Your task to perform on an android device: toggle pop-ups in chrome Image 0: 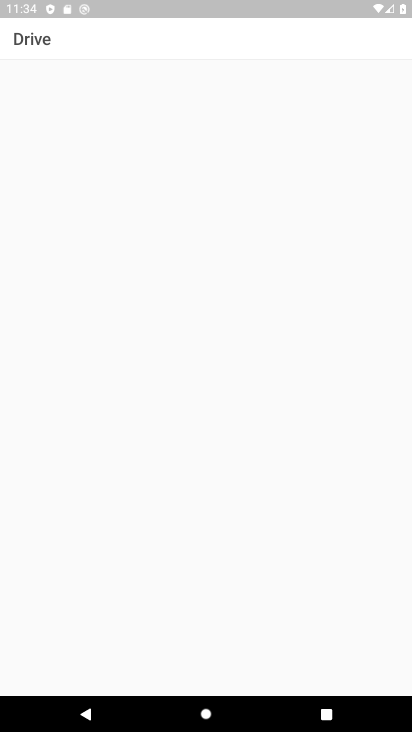
Step 0: press home button
Your task to perform on an android device: toggle pop-ups in chrome Image 1: 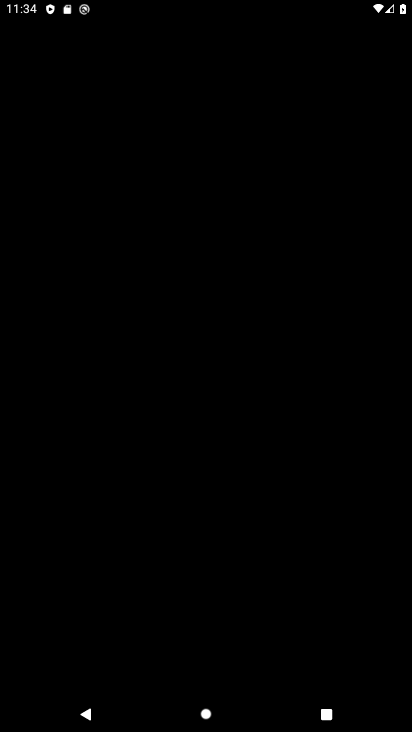
Step 1: press home button
Your task to perform on an android device: toggle pop-ups in chrome Image 2: 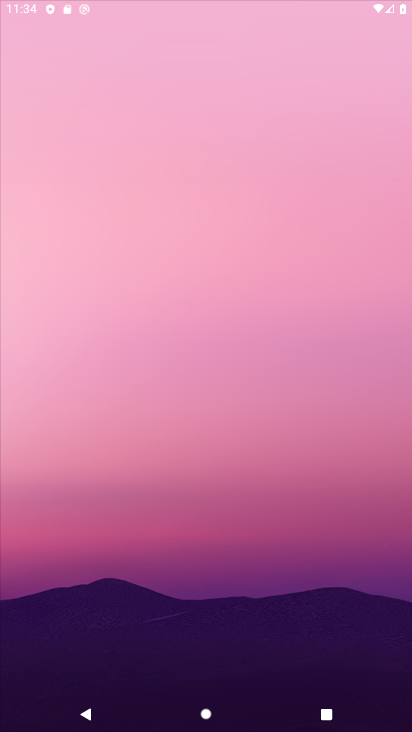
Step 2: click (245, 58)
Your task to perform on an android device: toggle pop-ups in chrome Image 3: 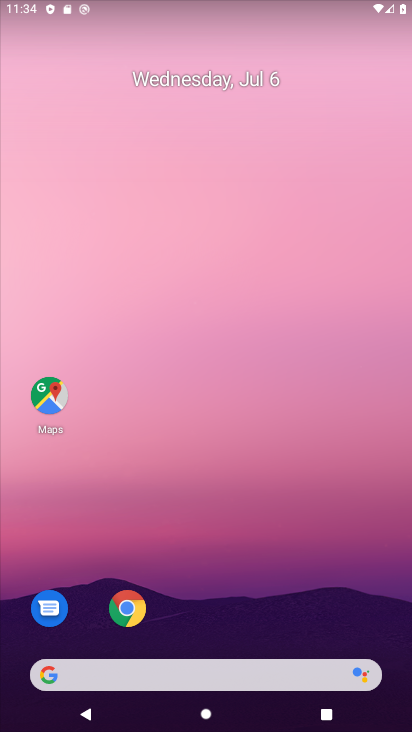
Step 3: drag from (246, 527) to (410, 333)
Your task to perform on an android device: toggle pop-ups in chrome Image 4: 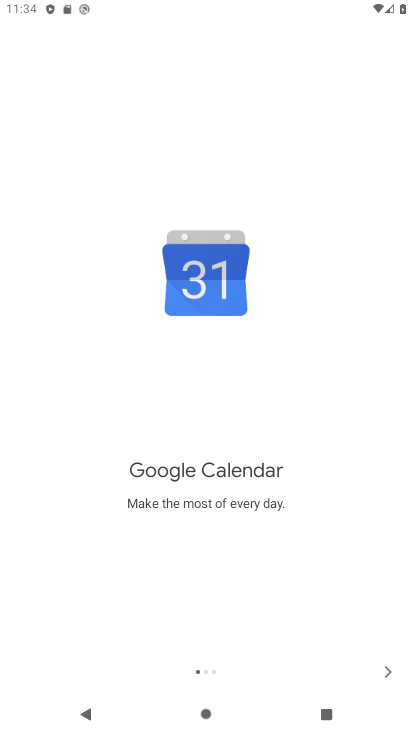
Step 4: press home button
Your task to perform on an android device: toggle pop-ups in chrome Image 5: 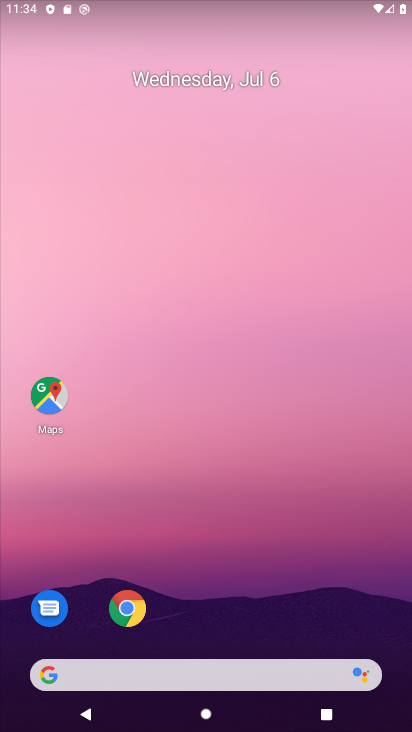
Step 5: drag from (392, 647) to (347, 131)
Your task to perform on an android device: toggle pop-ups in chrome Image 6: 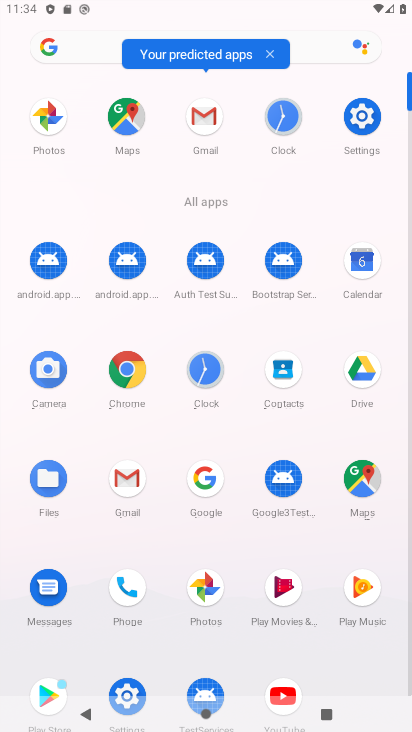
Step 6: click (138, 372)
Your task to perform on an android device: toggle pop-ups in chrome Image 7: 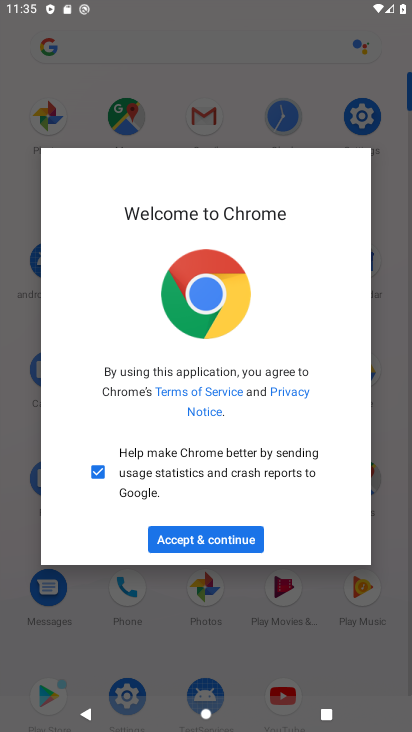
Step 7: click (278, 590)
Your task to perform on an android device: toggle pop-ups in chrome Image 8: 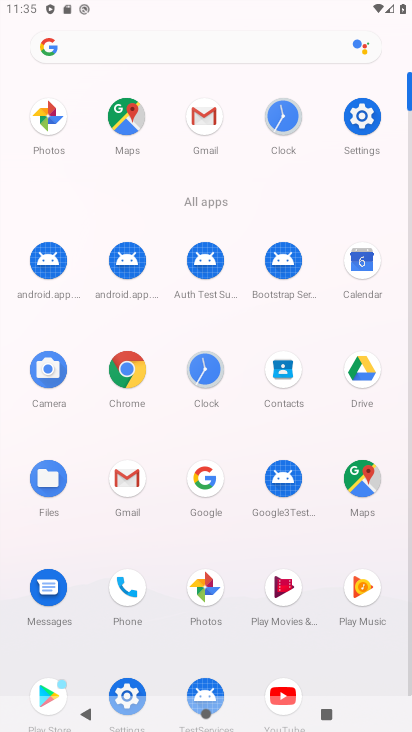
Step 8: click (114, 374)
Your task to perform on an android device: toggle pop-ups in chrome Image 9: 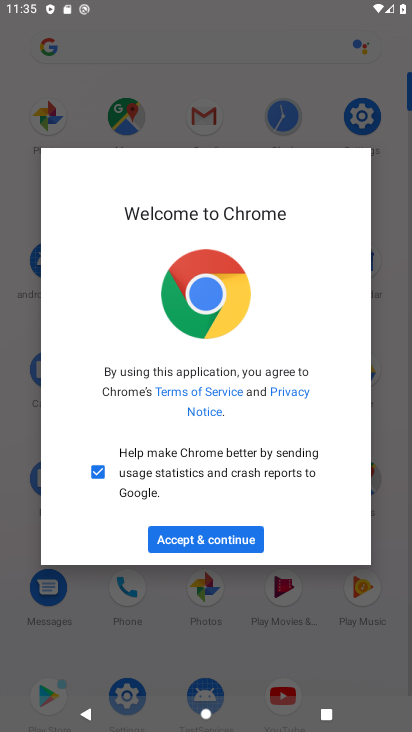
Step 9: click (242, 551)
Your task to perform on an android device: toggle pop-ups in chrome Image 10: 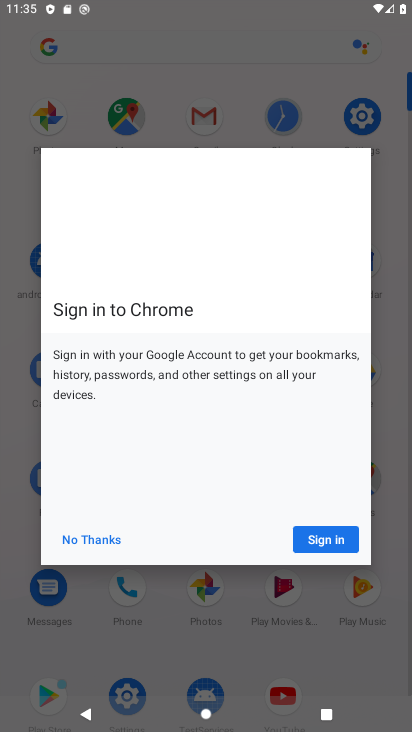
Step 10: click (309, 542)
Your task to perform on an android device: toggle pop-ups in chrome Image 11: 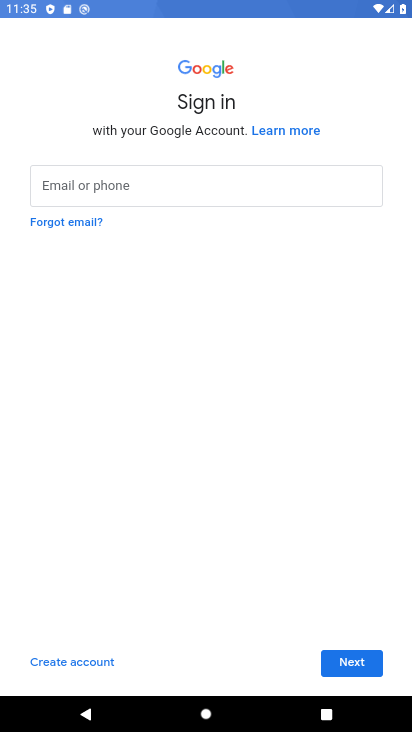
Step 11: click (368, 658)
Your task to perform on an android device: toggle pop-ups in chrome Image 12: 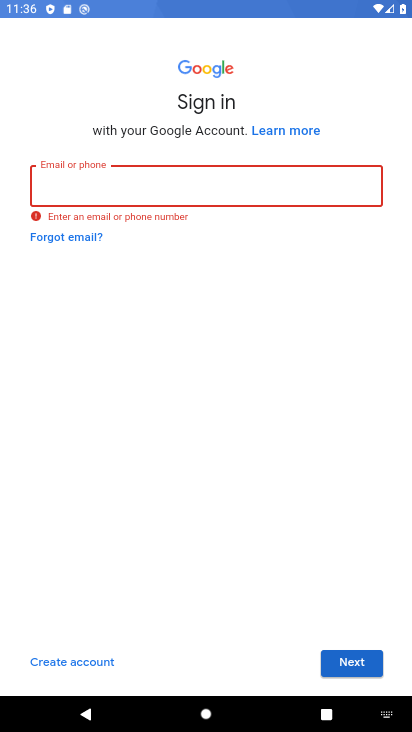
Step 12: task complete